Your task to perform on an android device: open app "The Home Depot" (install if not already installed) and go to login screen Image 0: 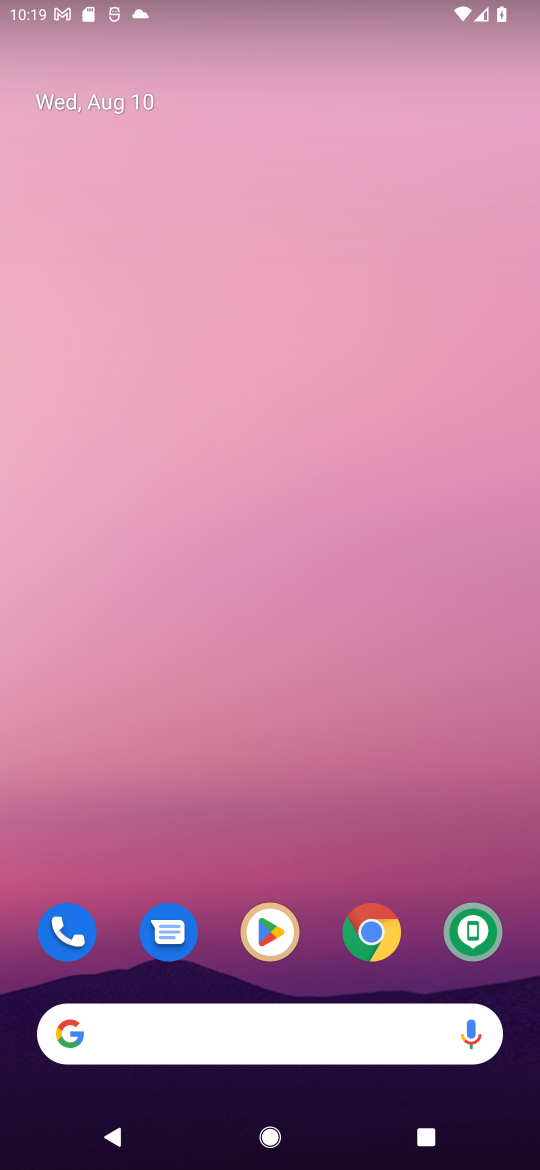
Step 0: click (264, 929)
Your task to perform on an android device: open app "The Home Depot" (install if not already installed) and go to login screen Image 1: 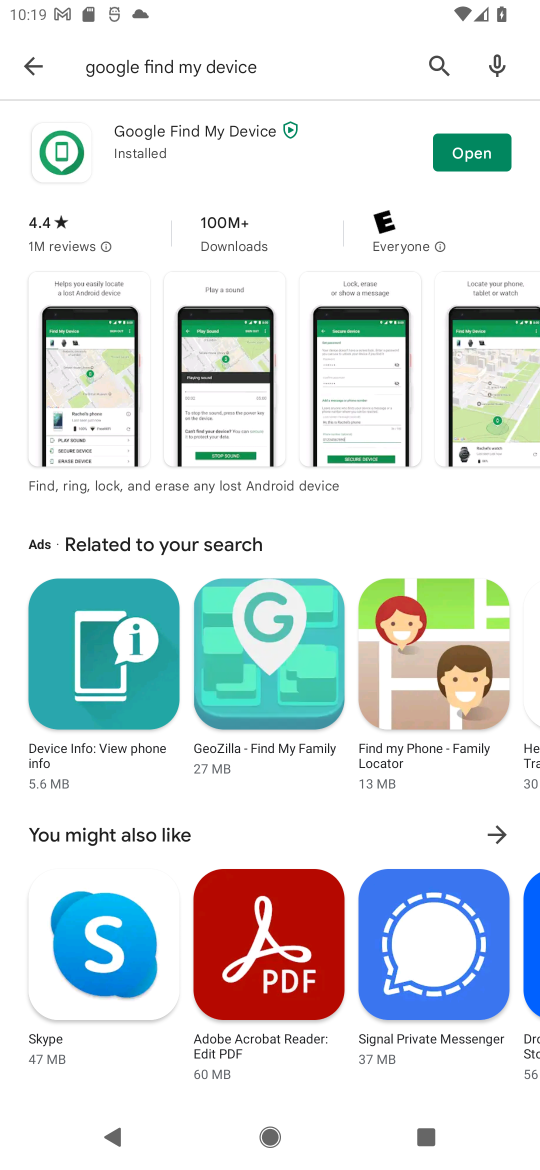
Step 1: click (438, 53)
Your task to perform on an android device: open app "The Home Depot" (install if not already installed) and go to login screen Image 2: 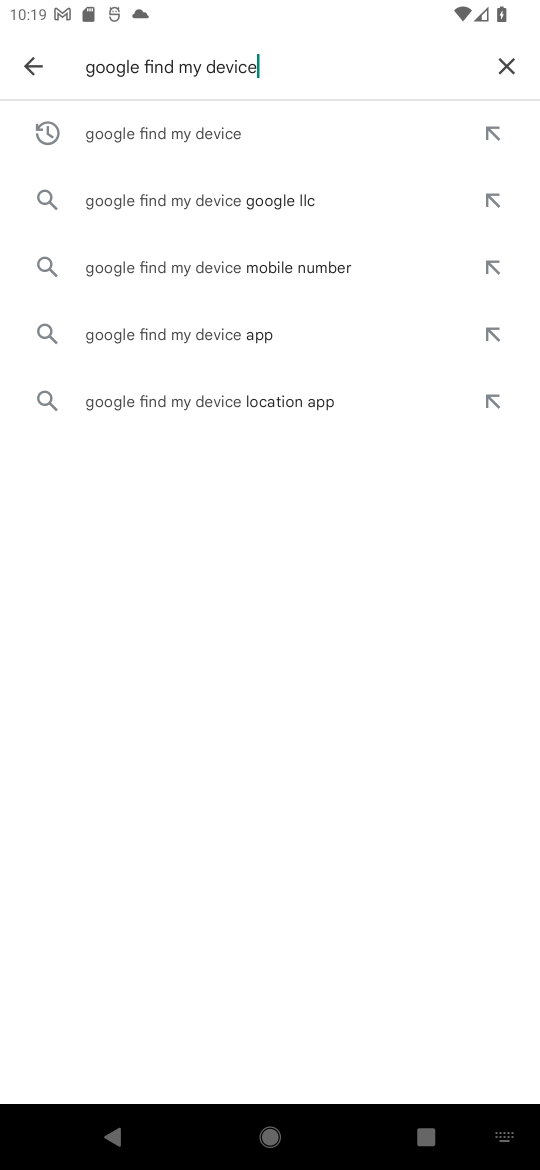
Step 2: click (514, 63)
Your task to perform on an android device: open app "The Home Depot" (install if not already installed) and go to login screen Image 3: 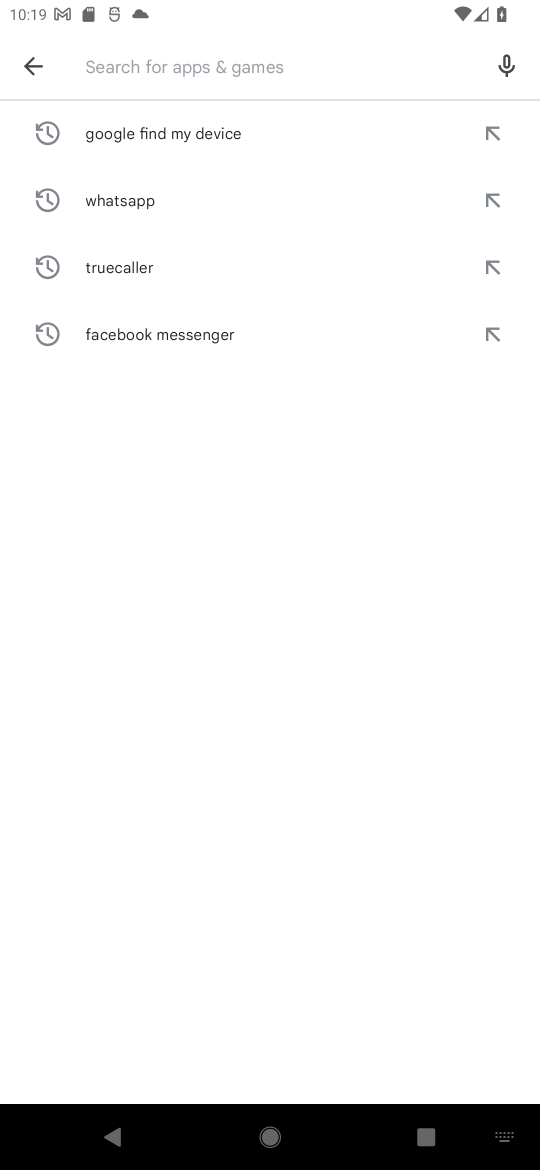
Step 3: type "the home depot"
Your task to perform on an android device: open app "The Home Depot" (install if not already installed) and go to login screen Image 4: 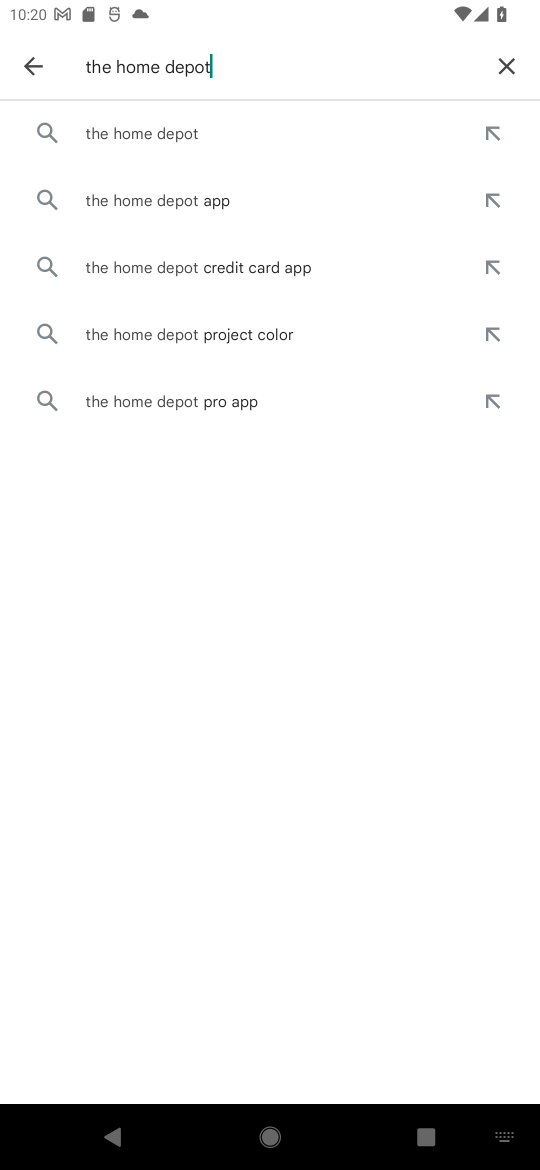
Step 4: press home button
Your task to perform on an android device: open app "The Home Depot" (install if not already installed) and go to login screen Image 5: 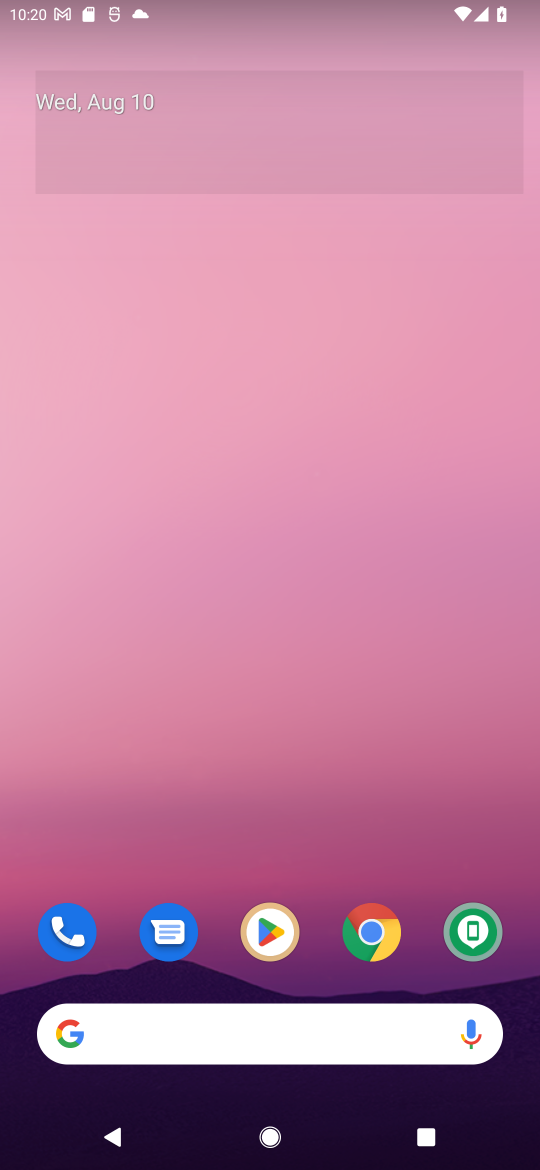
Step 5: click (273, 929)
Your task to perform on an android device: open app "The Home Depot" (install if not already installed) and go to login screen Image 6: 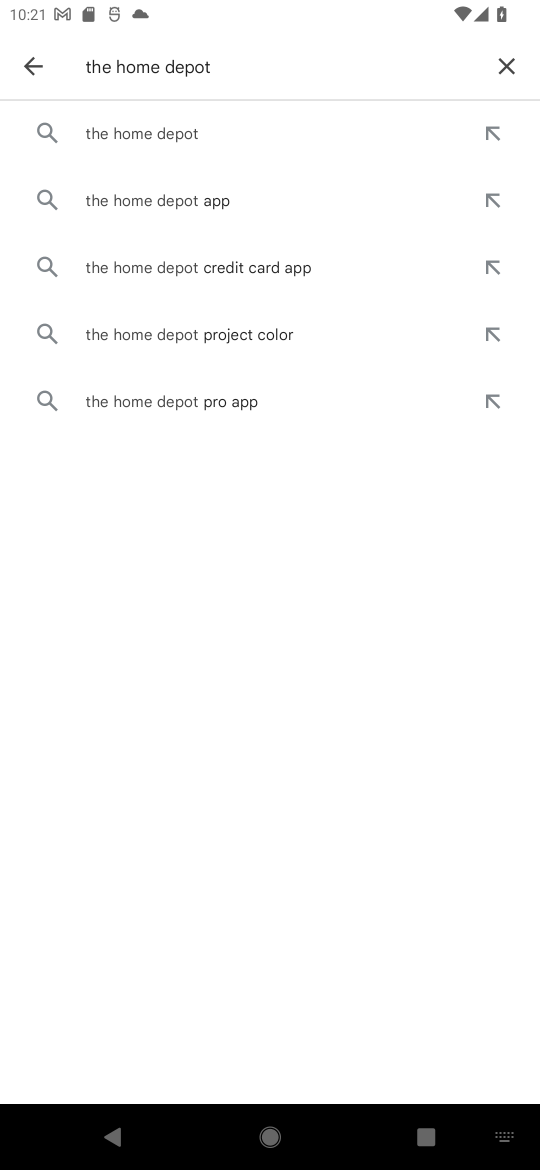
Step 6: click (220, 115)
Your task to perform on an android device: open app "The Home Depot" (install if not already installed) and go to login screen Image 7: 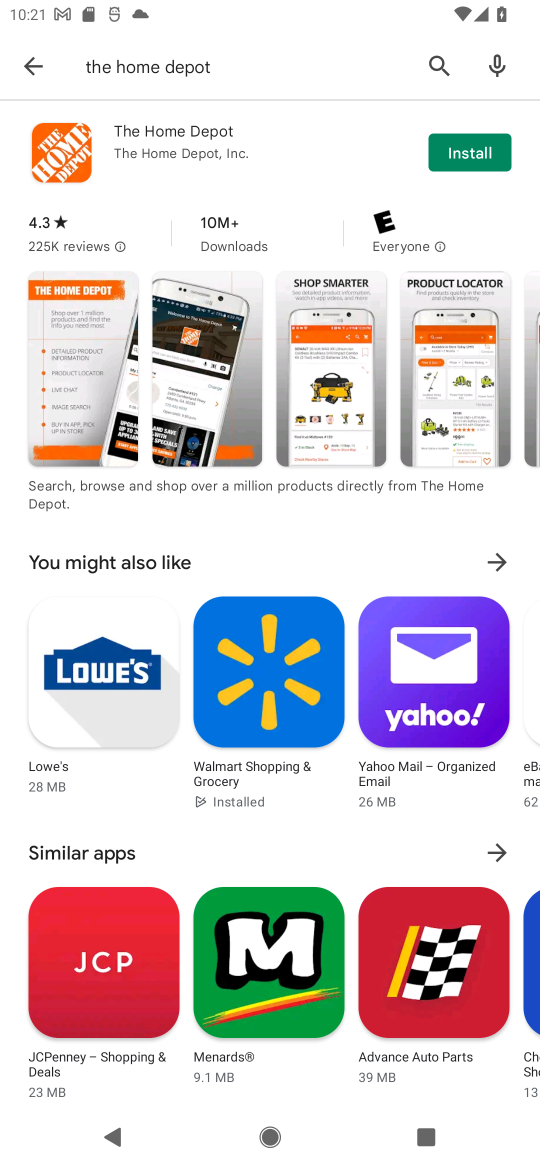
Step 7: click (444, 145)
Your task to perform on an android device: open app "The Home Depot" (install if not already installed) and go to login screen Image 8: 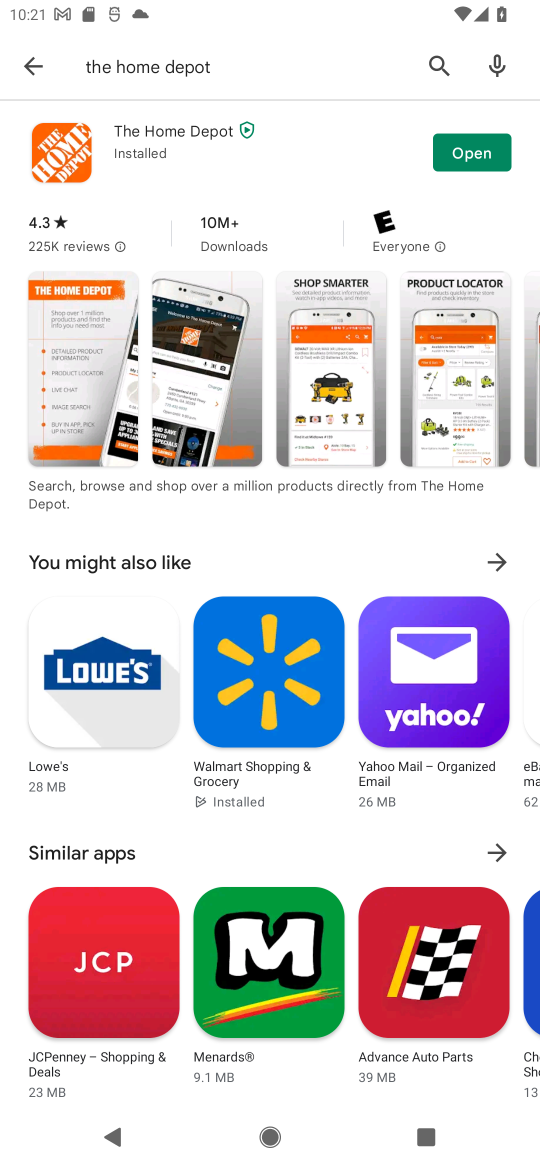
Step 8: click (494, 155)
Your task to perform on an android device: open app "The Home Depot" (install if not already installed) and go to login screen Image 9: 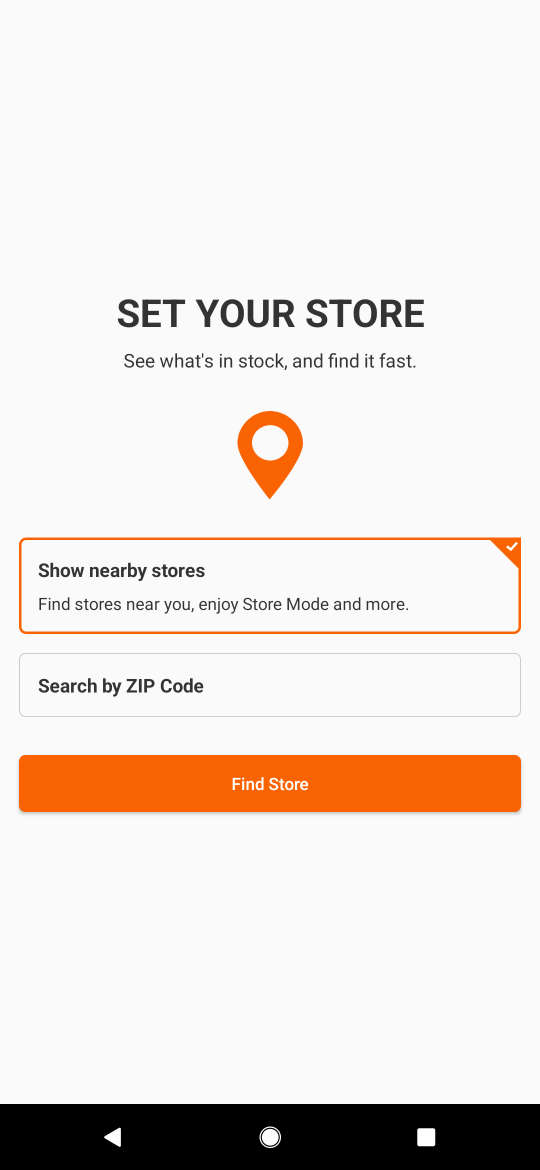
Step 9: click (248, 615)
Your task to perform on an android device: open app "The Home Depot" (install if not already installed) and go to login screen Image 10: 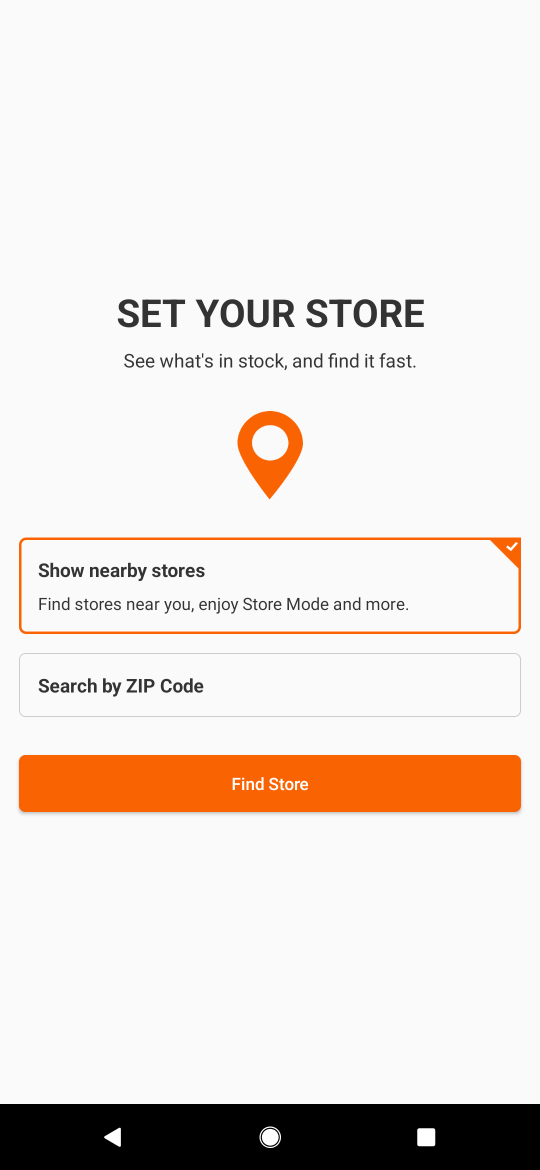
Step 10: click (308, 769)
Your task to perform on an android device: open app "The Home Depot" (install if not already installed) and go to login screen Image 11: 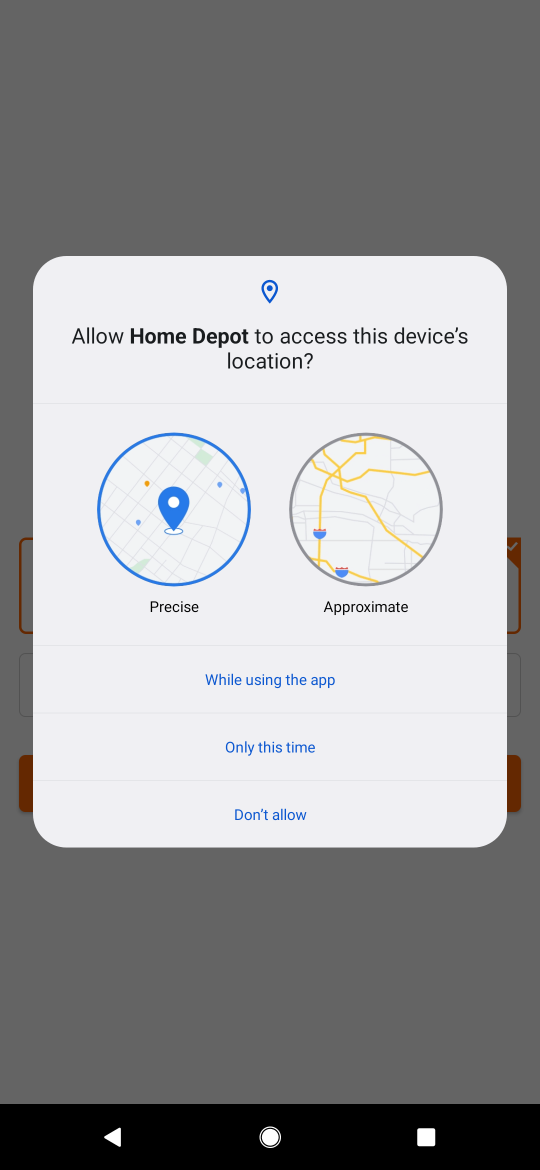
Step 11: click (243, 737)
Your task to perform on an android device: open app "The Home Depot" (install if not already installed) and go to login screen Image 12: 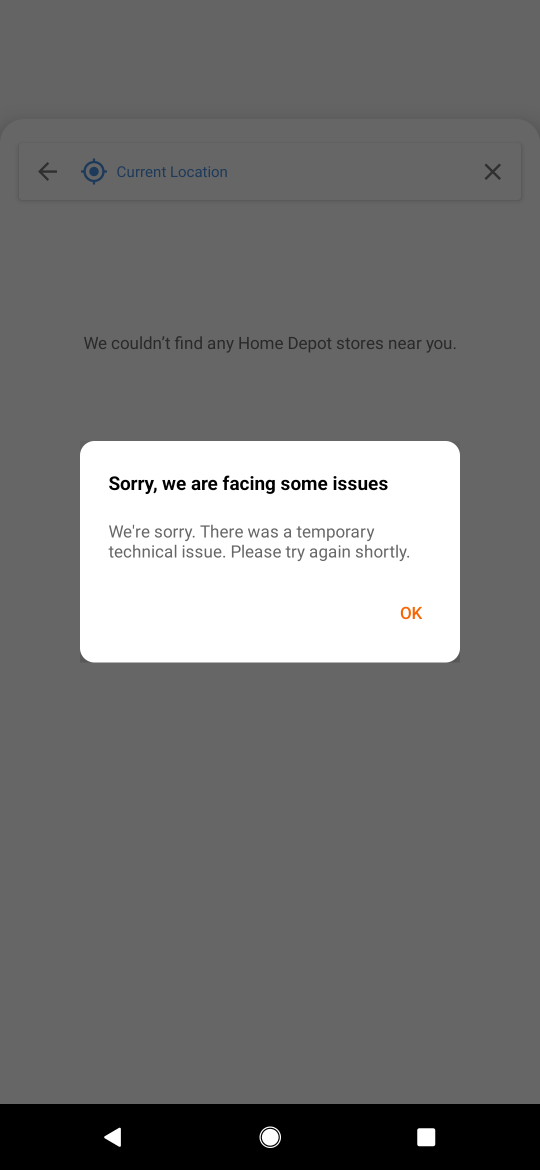
Step 12: click (408, 619)
Your task to perform on an android device: open app "The Home Depot" (install if not already installed) and go to login screen Image 13: 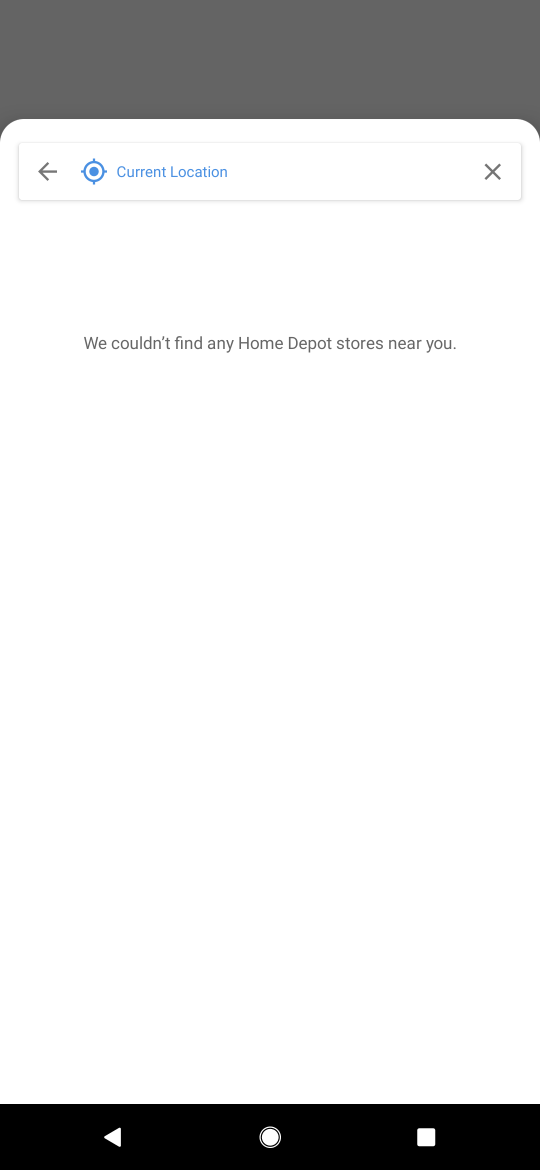
Step 13: task complete